Your task to perform on an android device: Go to Reddit.com Image 0: 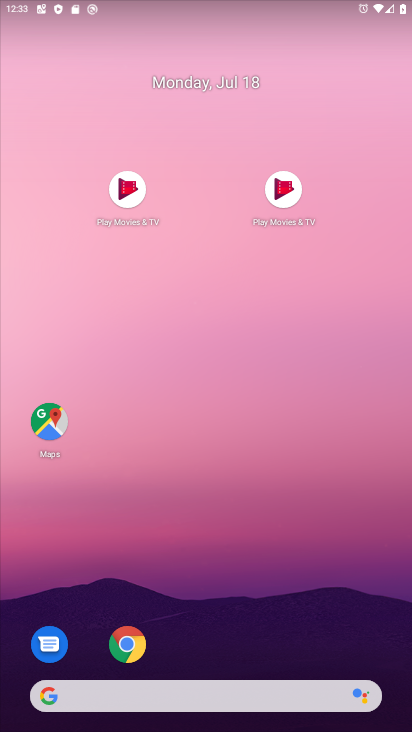
Step 0: drag from (298, 628) to (190, 102)
Your task to perform on an android device: Go to Reddit.com Image 1: 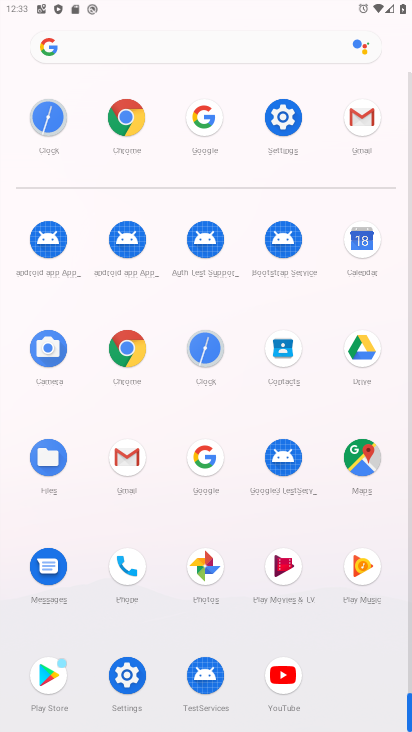
Step 1: click (124, 353)
Your task to perform on an android device: Go to Reddit.com Image 2: 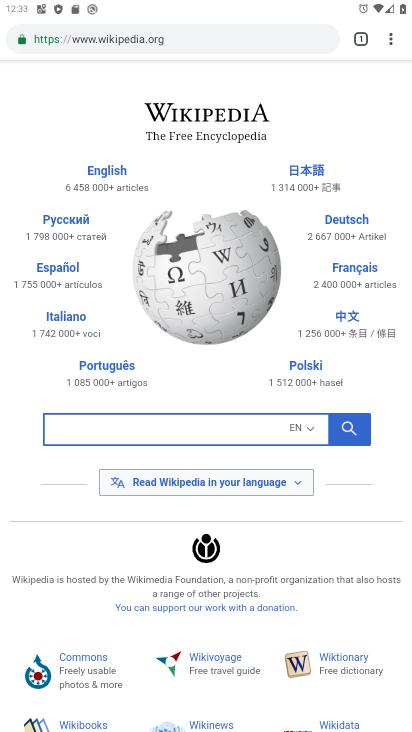
Step 2: click (177, 51)
Your task to perform on an android device: Go to Reddit.com Image 3: 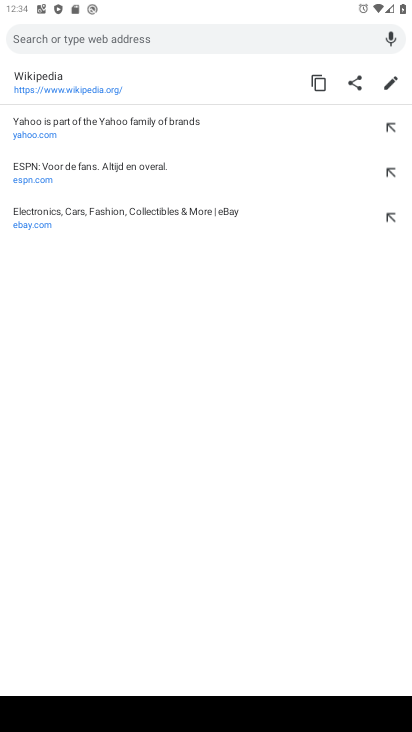
Step 3: type "reddit.com"
Your task to perform on an android device: Go to Reddit.com Image 4: 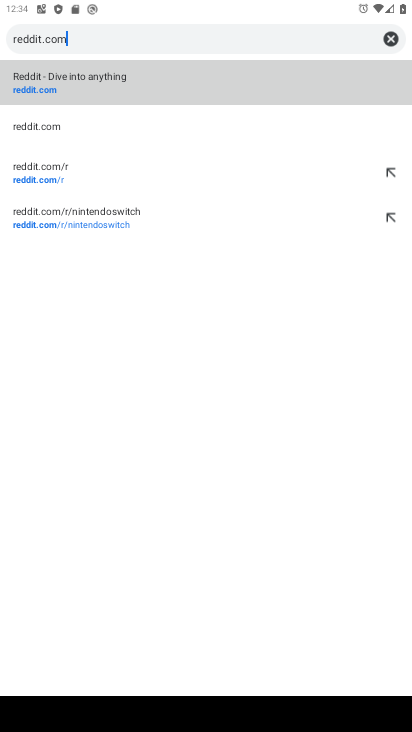
Step 4: click (31, 81)
Your task to perform on an android device: Go to Reddit.com Image 5: 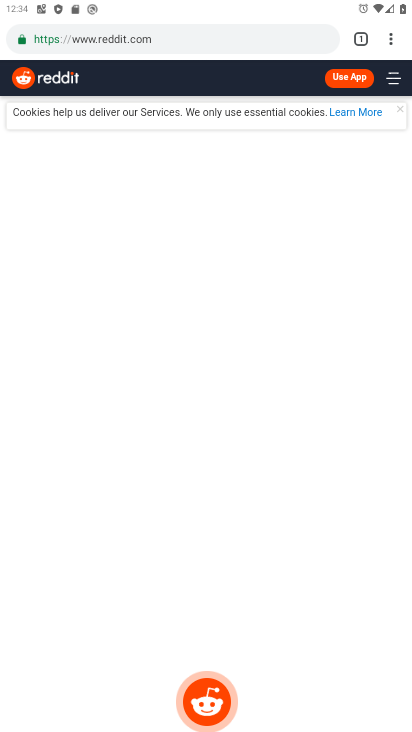
Step 5: task complete